Your task to perform on an android device: Go to privacy settings Image 0: 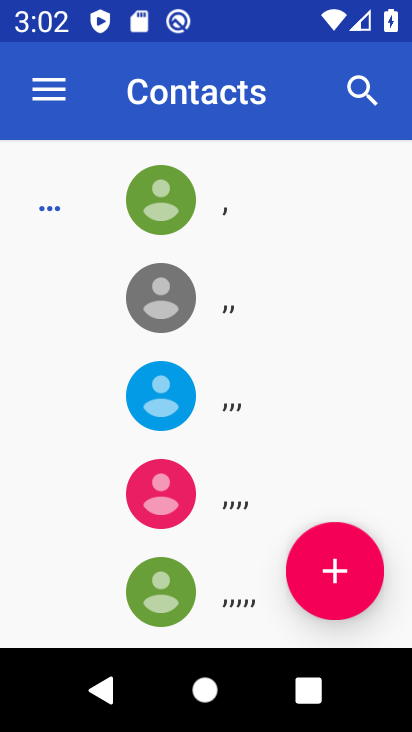
Step 0: press home button
Your task to perform on an android device: Go to privacy settings Image 1: 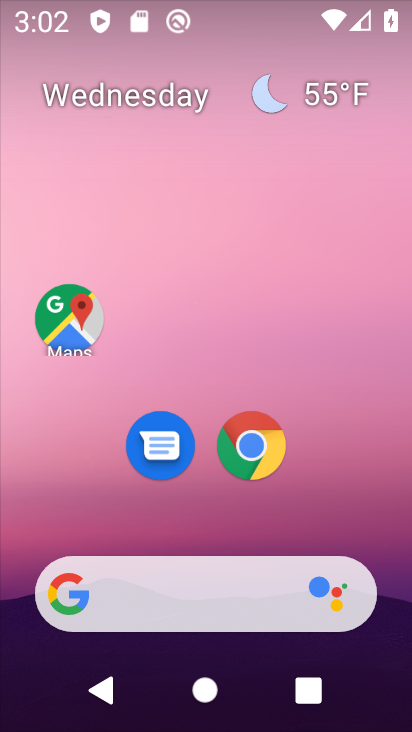
Step 1: drag from (378, 465) to (350, 39)
Your task to perform on an android device: Go to privacy settings Image 2: 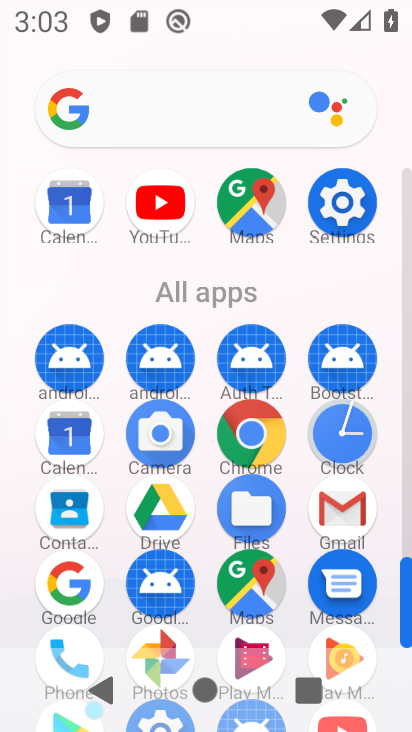
Step 2: click (353, 185)
Your task to perform on an android device: Go to privacy settings Image 3: 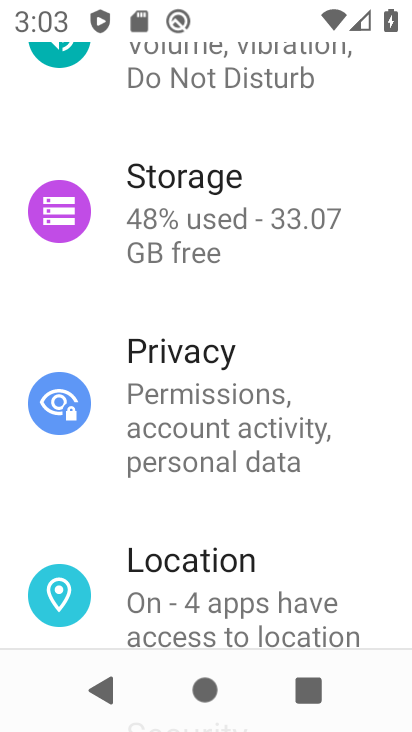
Step 3: click (134, 405)
Your task to perform on an android device: Go to privacy settings Image 4: 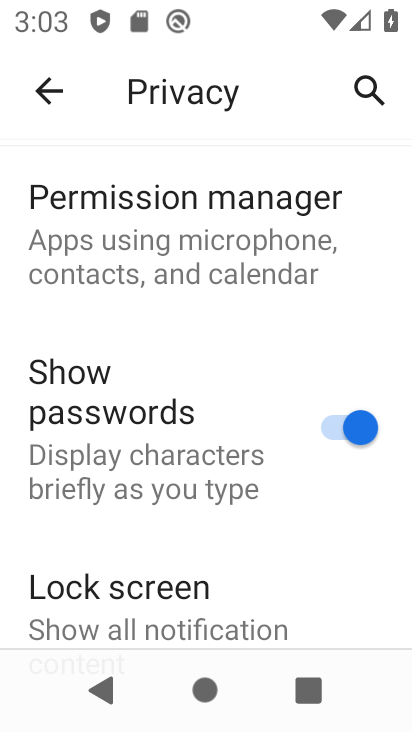
Step 4: task complete